Your task to perform on an android device: Show the shopping cart on newegg. Add acer nitro to the cart on newegg Image 0: 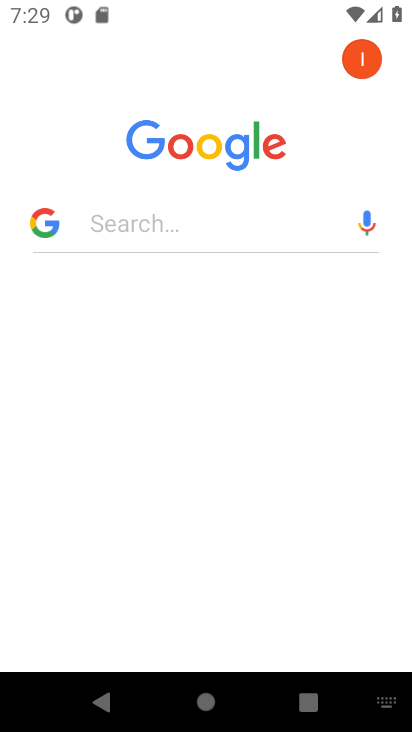
Step 0: press home button
Your task to perform on an android device: Show the shopping cart on newegg. Add acer nitro to the cart on newegg Image 1: 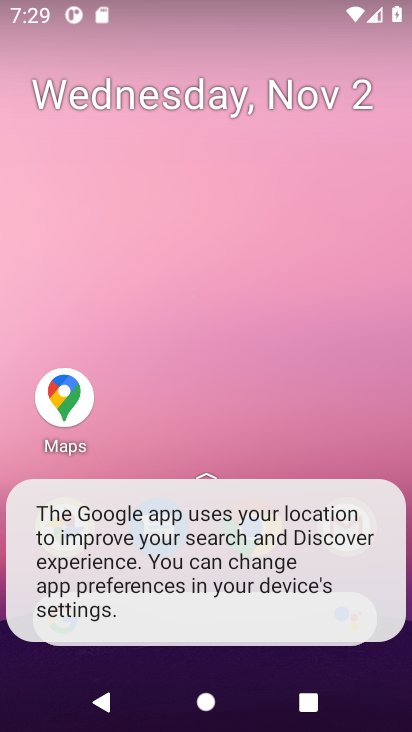
Step 1: click (265, 438)
Your task to perform on an android device: Show the shopping cart on newegg. Add acer nitro to the cart on newegg Image 2: 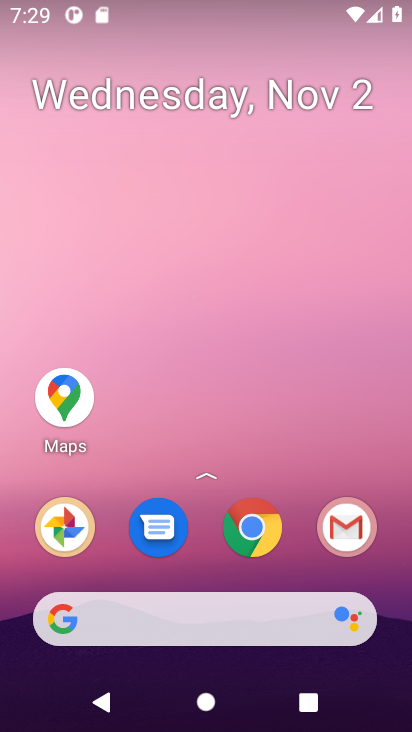
Step 2: click (254, 528)
Your task to perform on an android device: Show the shopping cart on newegg. Add acer nitro to the cart on newegg Image 3: 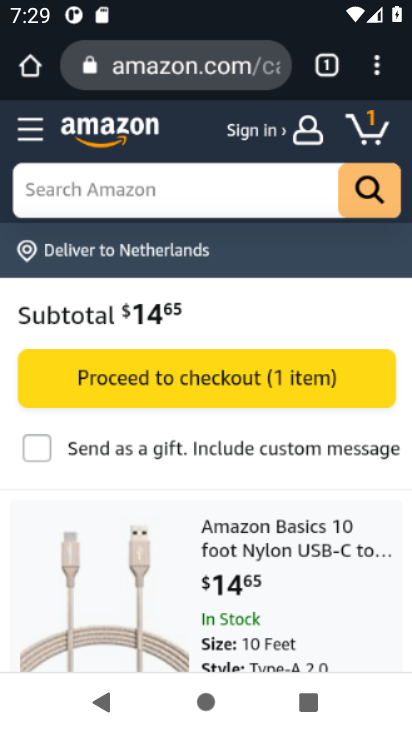
Step 3: click (254, 528)
Your task to perform on an android device: Show the shopping cart on newegg. Add acer nitro to the cart on newegg Image 4: 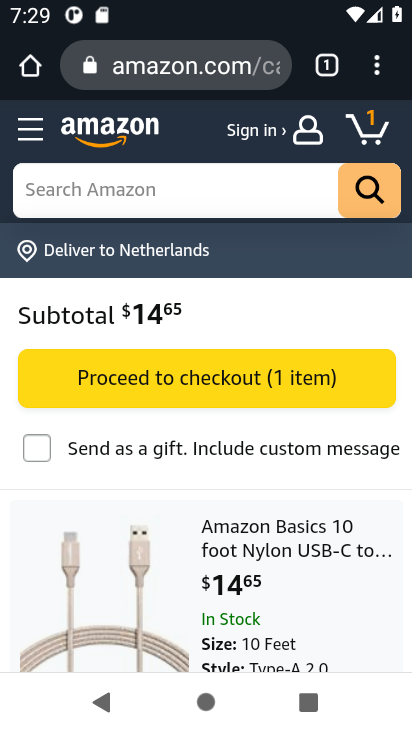
Step 4: click (135, 70)
Your task to perform on an android device: Show the shopping cart on newegg. Add acer nitro to the cart on newegg Image 5: 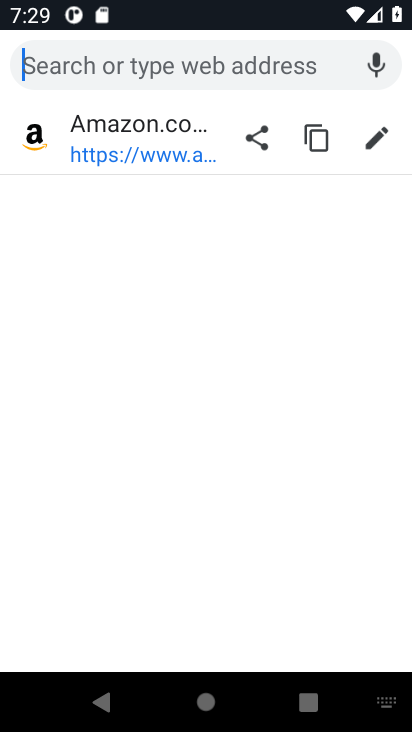
Step 5: type "newegg"
Your task to perform on an android device: Show the shopping cart on newegg. Add acer nitro to the cart on newegg Image 6: 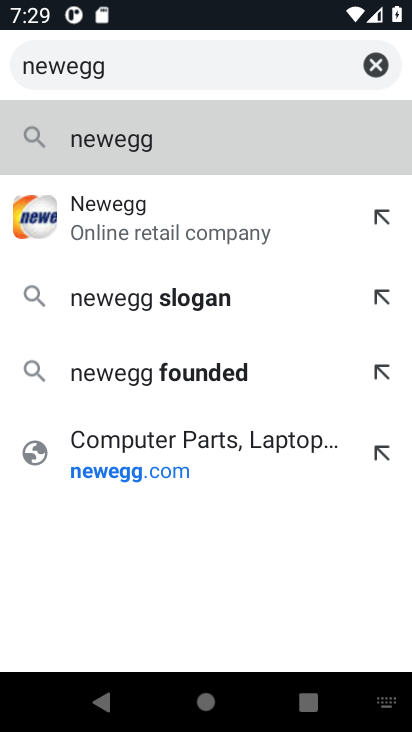
Step 6: click (113, 213)
Your task to perform on an android device: Show the shopping cart on newegg. Add acer nitro to the cart on newegg Image 7: 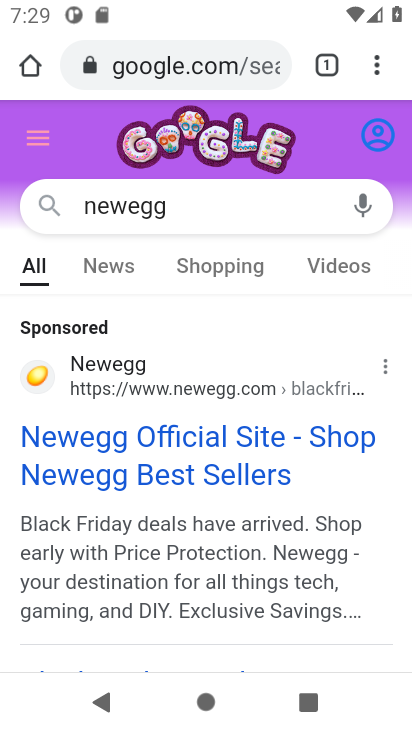
Step 7: click (134, 434)
Your task to perform on an android device: Show the shopping cart on newegg. Add acer nitro to the cart on newegg Image 8: 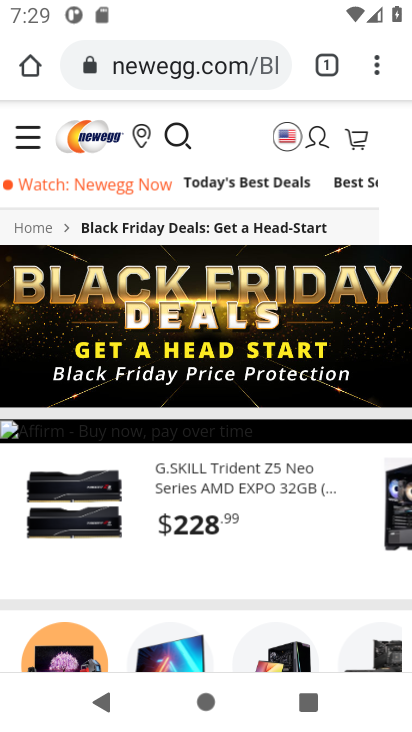
Step 8: click (353, 141)
Your task to perform on an android device: Show the shopping cart on newegg. Add acer nitro to the cart on newegg Image 9: 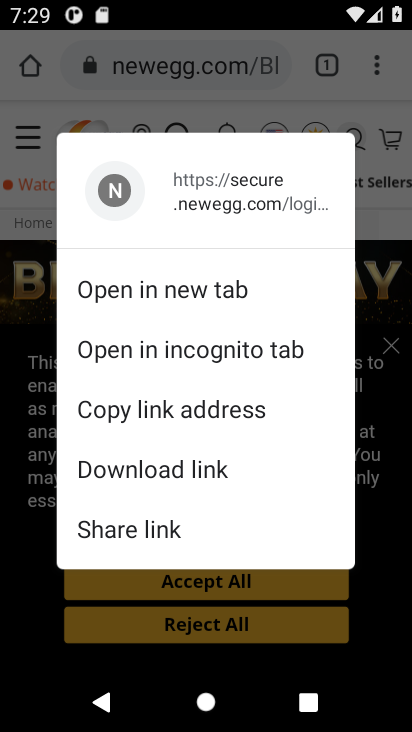
Step 9: click (394, 140)
Your task to perform on an android device: Show the shopping cart on newegg. Add acer nitro to the cart on newegg Image 10: 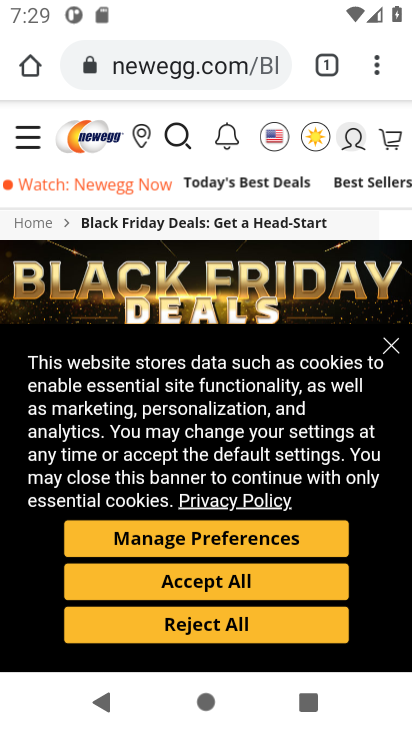
Step 10: click (394, 140)
Your task to perform on an android device: Show the shopping cart on newegg. Add acer nitro to the cart on newegg Image 11: 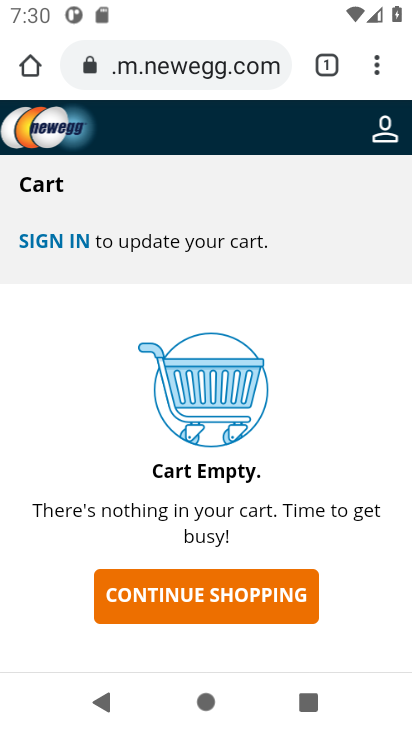
Step 11: click (174, 587)
Your task to perform on an android device: Show the shopping cart on newegg. Add acer nitro to the cart on newegg Image 12: 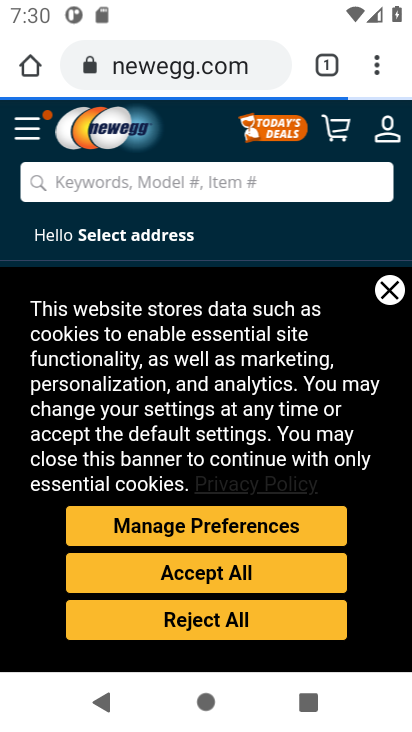
Step 12: click (182, 185)
Your task to perform on an android device: Show the shopping cart on newegg. Add acer nitro to the cart on newegg Image 13: 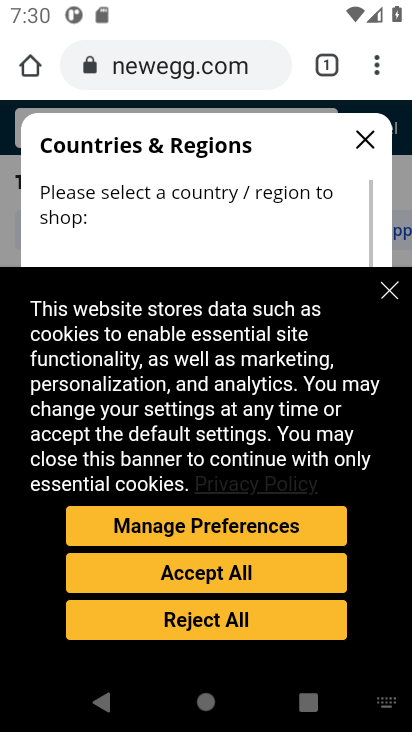
Step 13: click (372, 145)
Your task to perform on an android device: Show the shopping cart on newegg. Add acer nitro to the cart on newegg Image 14: 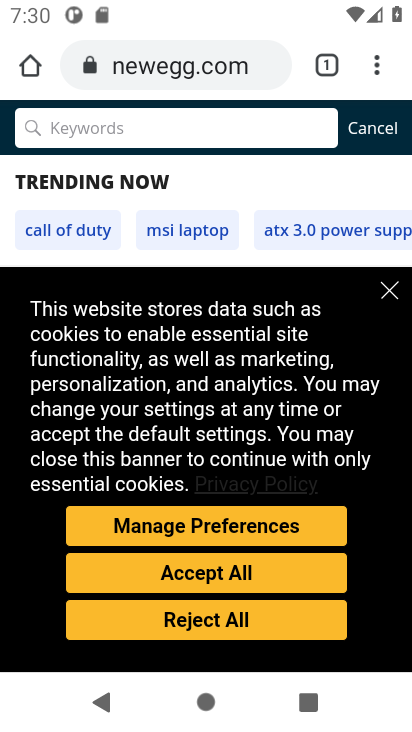
Step 14: click (389, 287)
Your task to perform on an android device: Show the shopping cart on newegg. Add acer nitro to the cart on newegg Image 15: 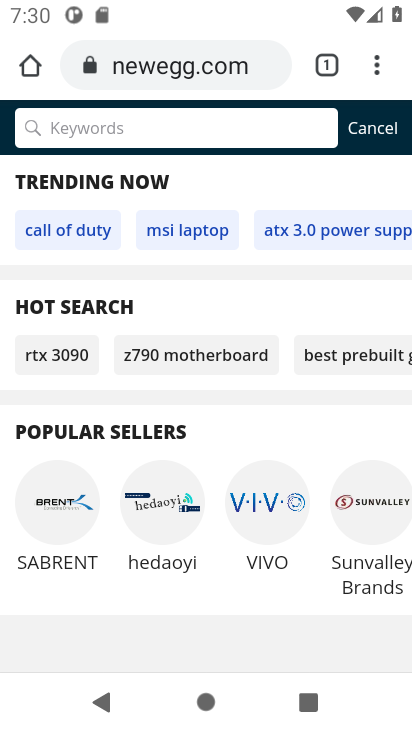
Step 15: click (213, 130)
Your task to perform on an android device: Show the shopping cart on newegg. Add acer nitro to the cart on newegg Image 16: 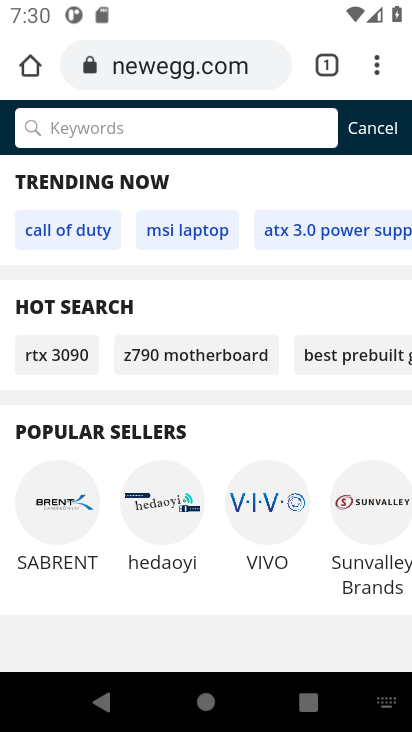
Step 16: type "acer nitro"
Your task to perform on an android device: Show the shopping cart on newegg. Add acer nitro to the cart on newegg Image 17: 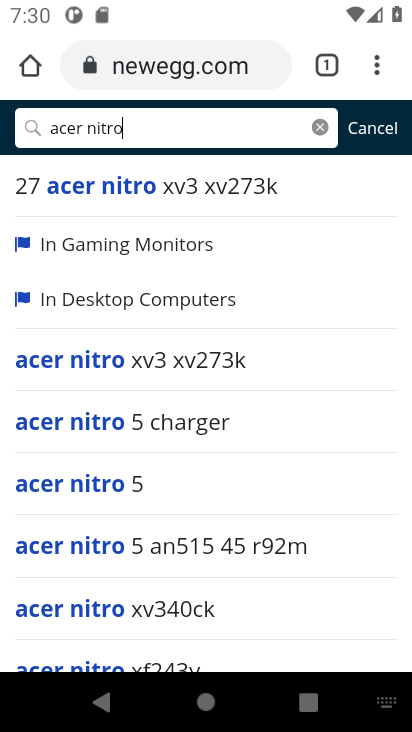
Step 17: press enter
Your task to perform on an android device: Show the shopping cart on newegg. Add acer nitro to the cart on newegg Image 18: 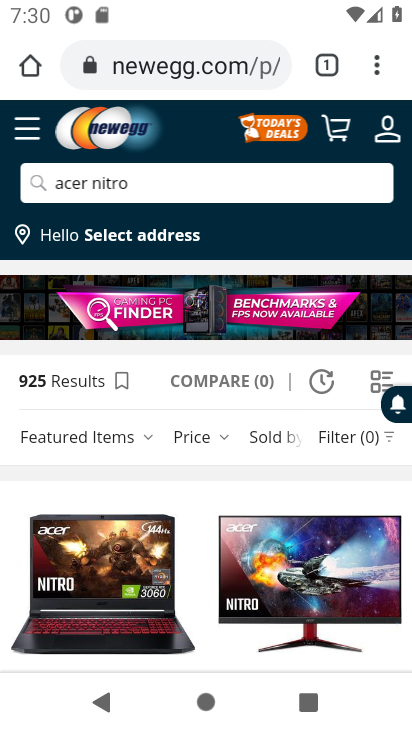
Step 18: drag from (198, 474) to (160, 196)
Your task to perform on an android device: Show the shopping cart on newegg. Add acer nitro to the cart on newegg Image 19: 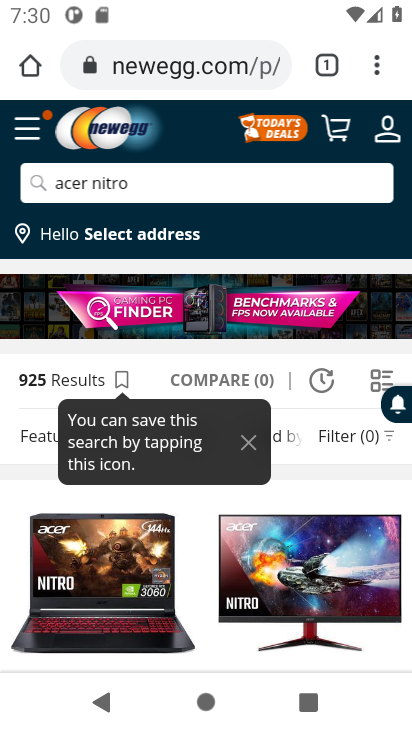
Step 19: drag from (199, 515) to (213, 221)
Your task to perform on an android device: Show the shopping cart on newegg. Add acer nitro to the cart on newegg Image 20: 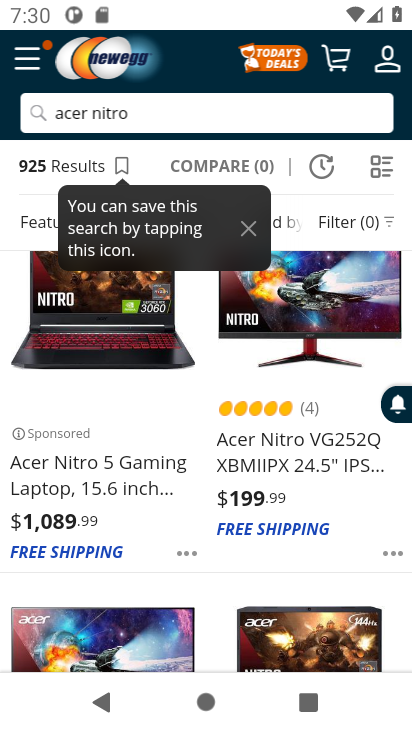
Step 20: click (98, 398)
Your task to perform on an android device: Show the shopping cart on newegg. Add acer nitro to the cart on newegg Image 21: 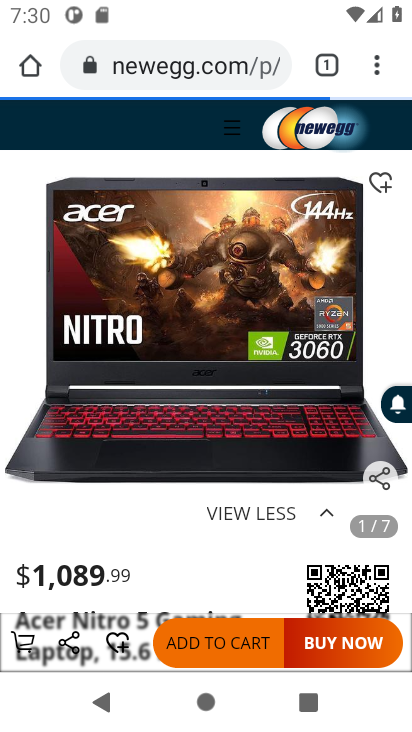
Step 21: drag from (231, 569) to (160, 18)
Your task to perform on an android device: Show the shopping cart on newegg. Add acer nitro to the cart on newegg Image 22: 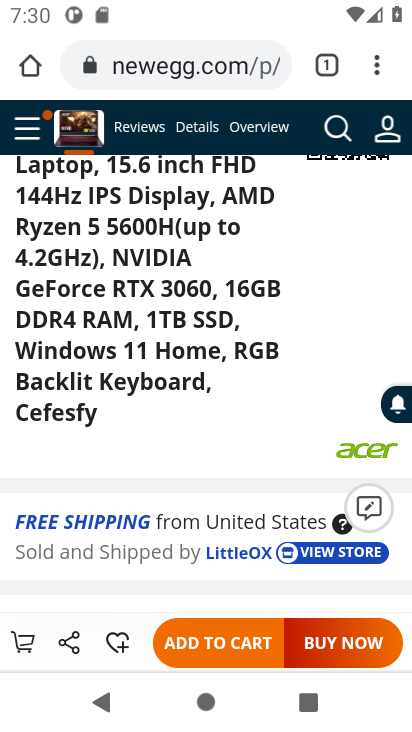
Step 22: click (210, 648)
Your task to perform on an android device: Show the shopping cart on newegg. Add acer nitro to the cart on newegg Image 23: 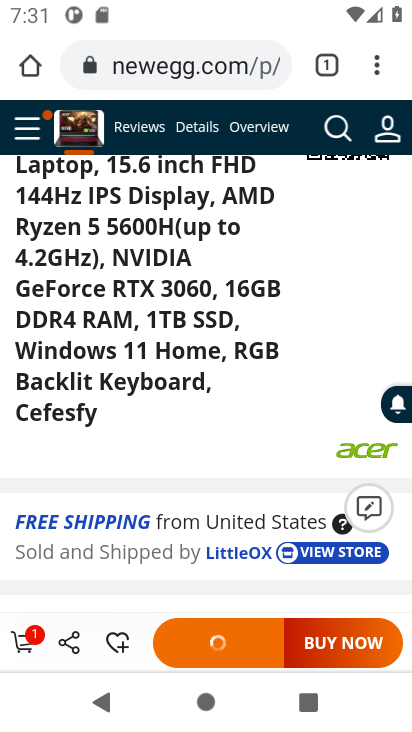
Step 23: task complete